Your task to perform on an android device: open wifi settings Image 0: 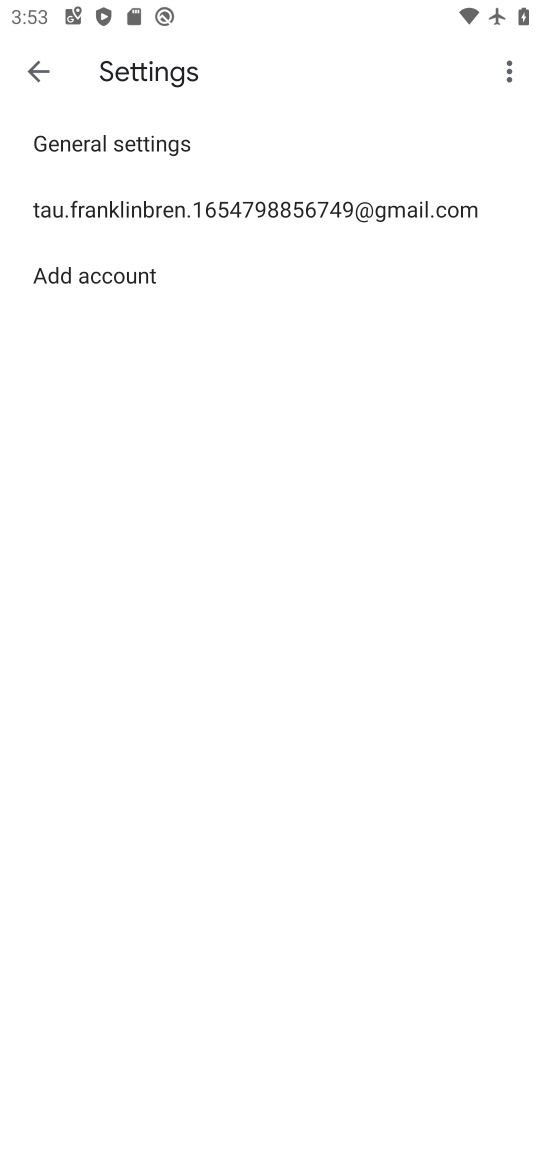
Step 0: press home button
Your task to perform on an android device: open wifi settings Image 1: 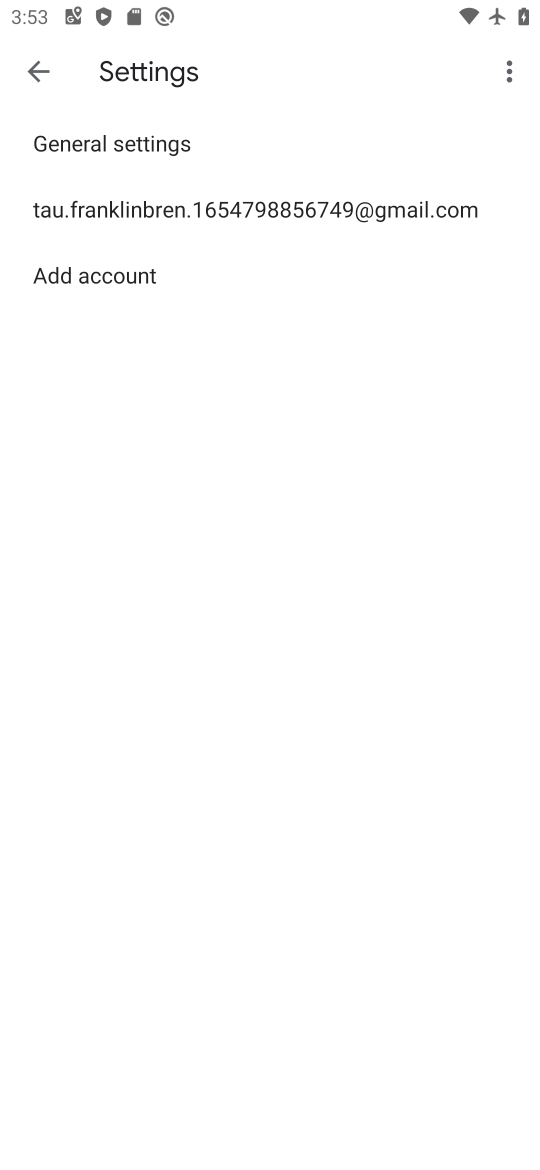
Step 1: press home button
Your task to perform on an android device: open wifi settings Image 2: 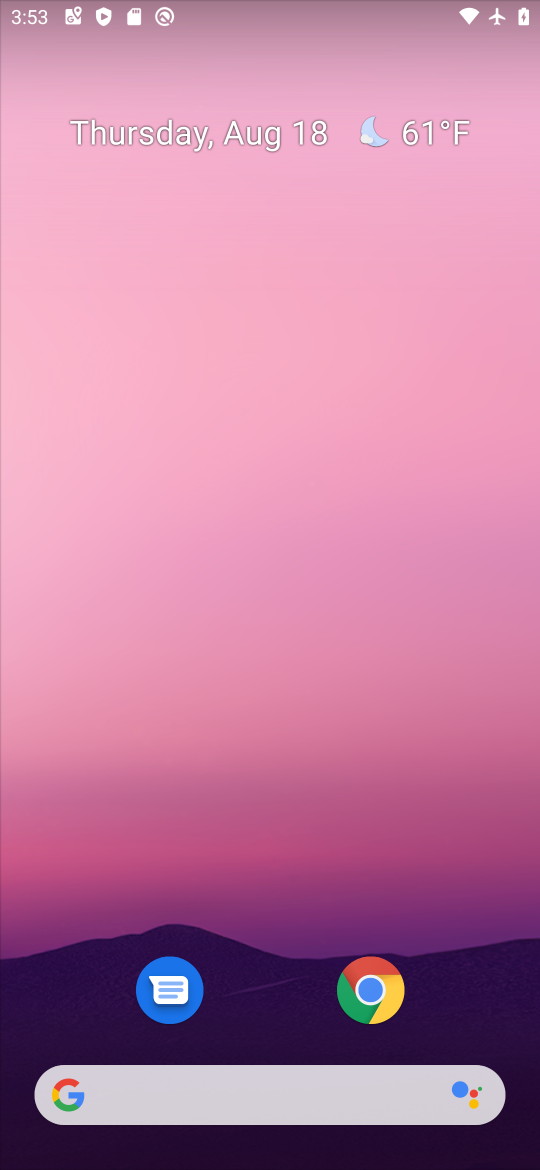
Step 2: drag from (186, 860) to (297, 28)
Your task to perform on an android device: open wifi settings Image 3: 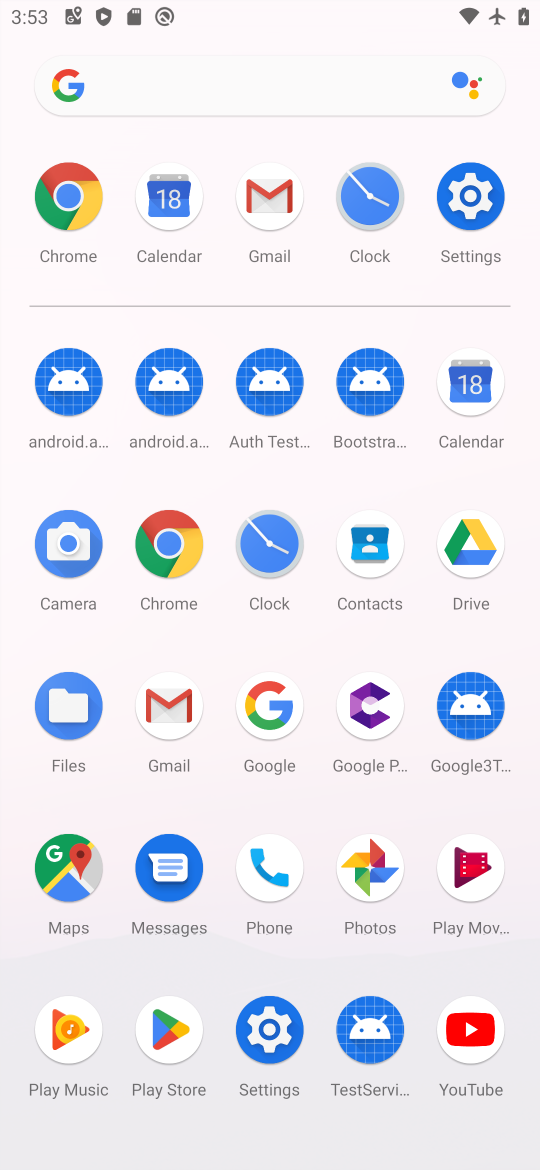
Step 3: click (268, 1047)
Your task to perform on an android device: open wifi settings Image 4: 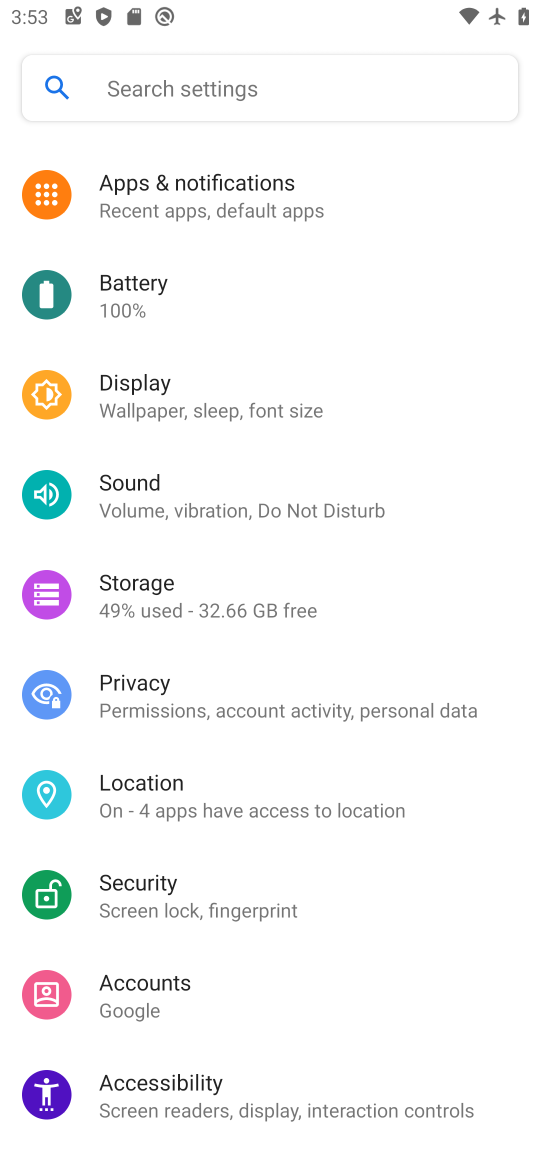
Step 4: drag from (295, 192) to (206, 1046)
Your task to perform on an android device: open wifi settings Image 5: 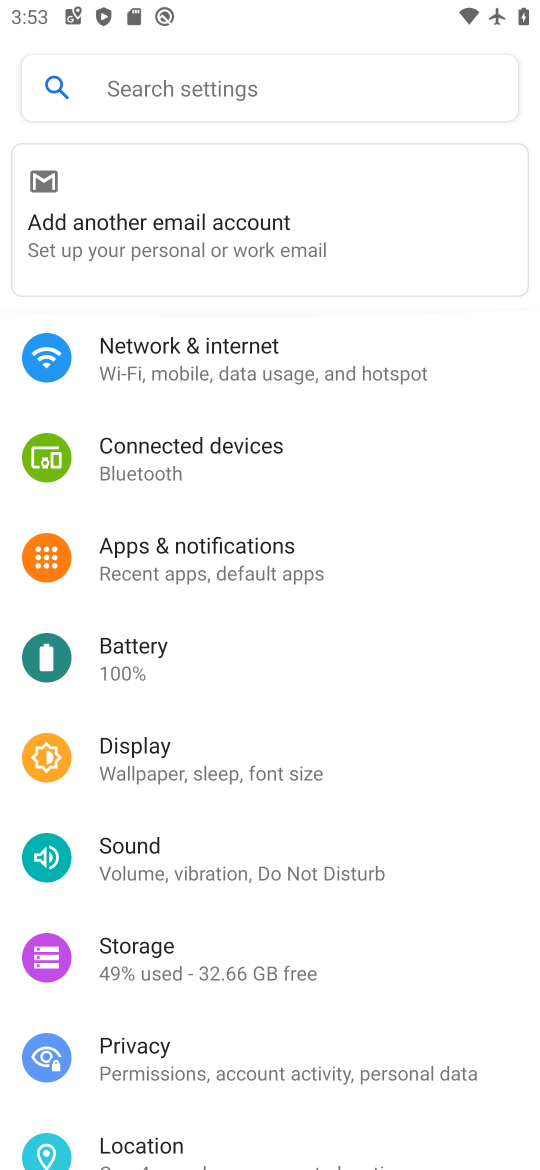
Step 5: click (191, 347)
Your task to perform on an android device: open wifi settings Image 6: 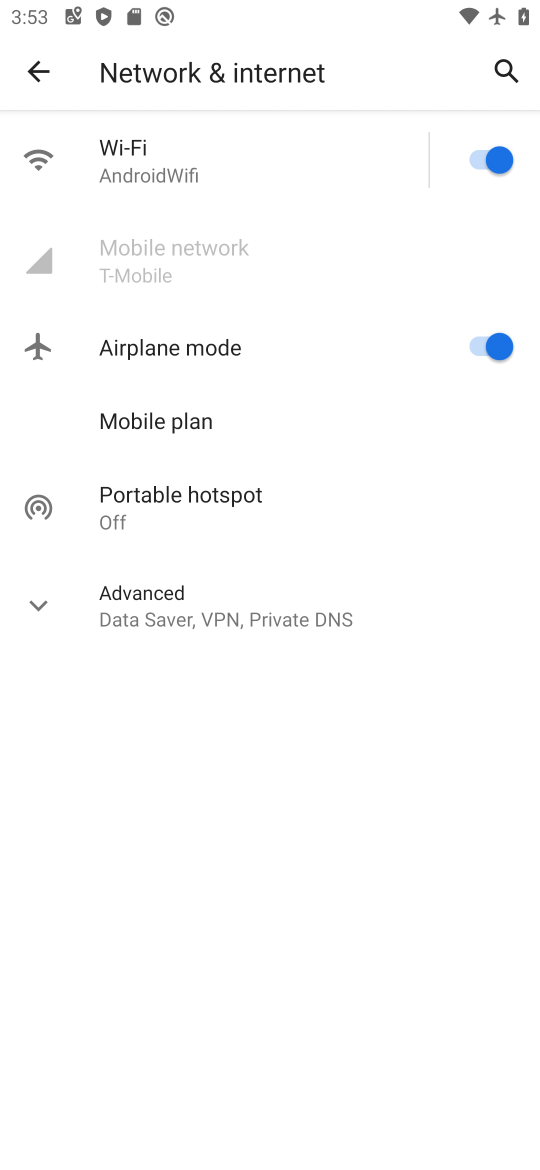
Step 6: click (291, 162)
Your task to perform on an android device: open wifi settings Image 7: 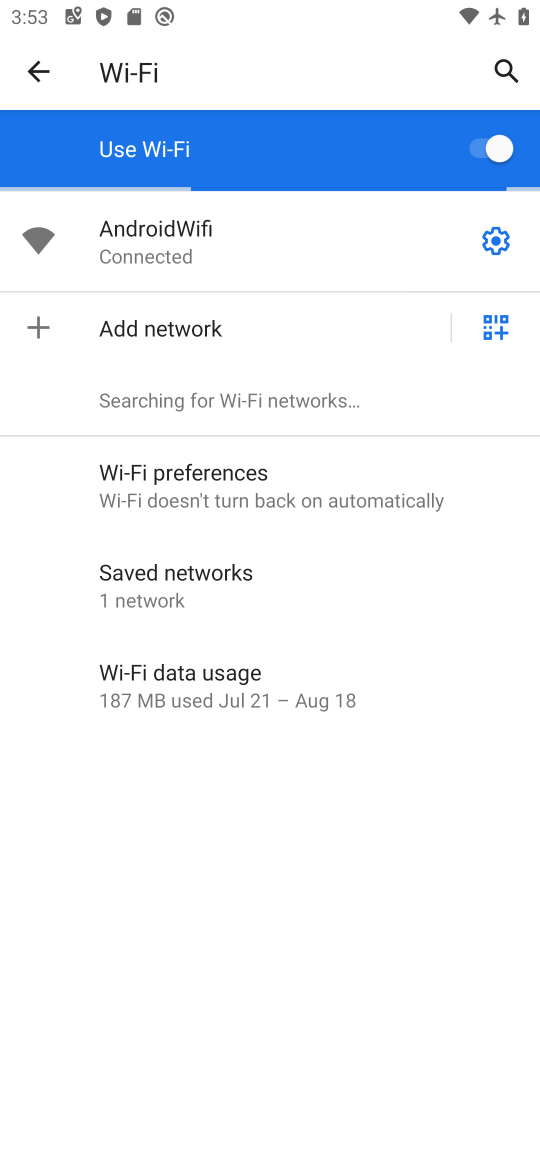
Step 7: task complete